Your task to perform on an android device: Open the phone app and click the voicemail tab. Image 0: 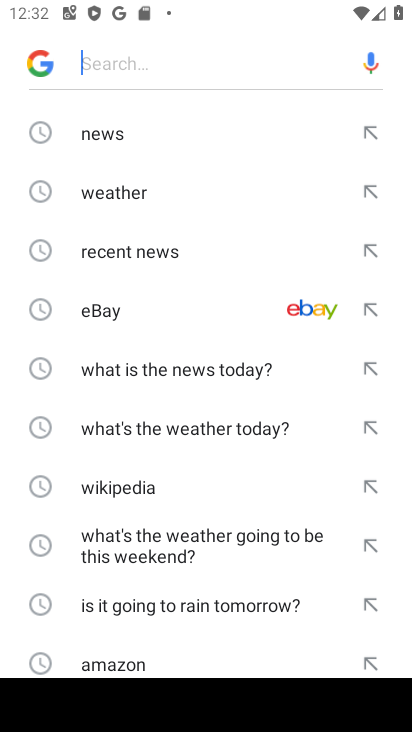
Step 0: press home button
Your task to perform on an android device: Open the phone app and click the voicemail tab. Image 1: 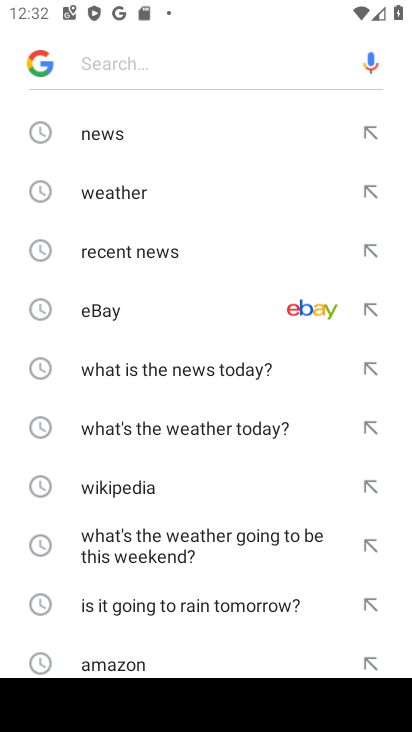
Step 1: press home button
Your task to perform on an android device: Open the phone app and click the voicemail tab. Image 2: 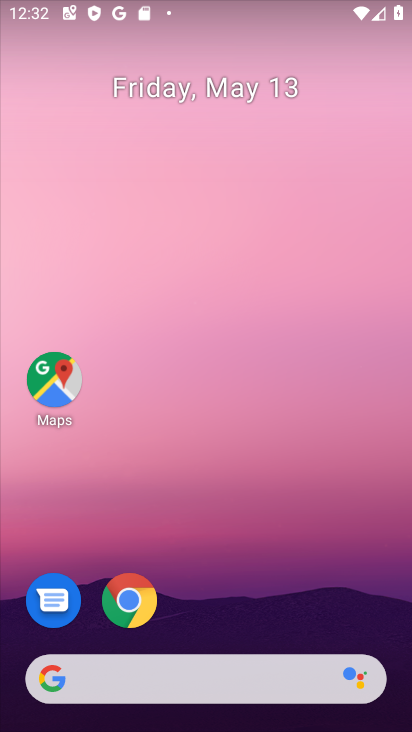
Step 2: drag from (232, 635) to (161, 107)
Your task to perform on an android device: Open the phone app and click the voicemail tab. Image 3: 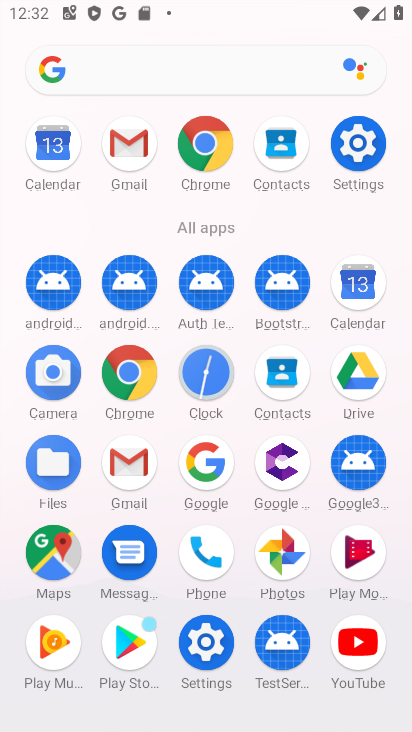
Step 3: click (198, 542)
Your task to perform on an android device: Open the phone app and click the voicemail tab. Image 4: 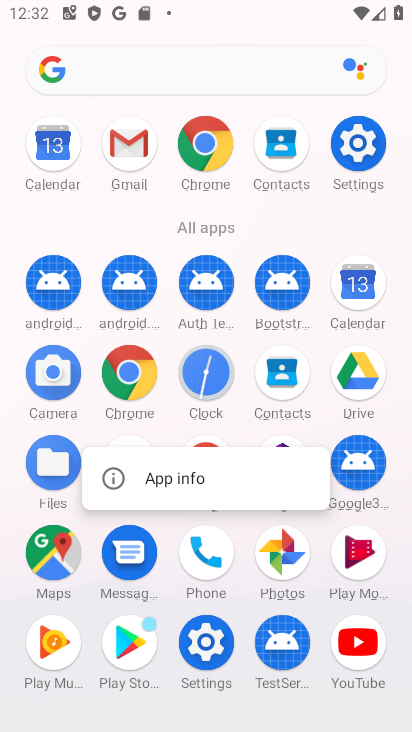
Step 4: click (158, 469)
Your task to perform on an android device: Open the phone app and click the voicemail tab. Image 5: 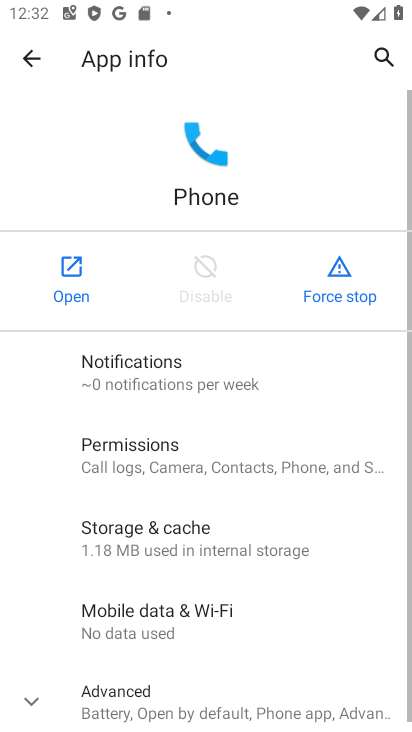
Step 5: click (72, 278)
Your task to perform on an android device: Open the phone app and click the voicemail tab. Image 6: 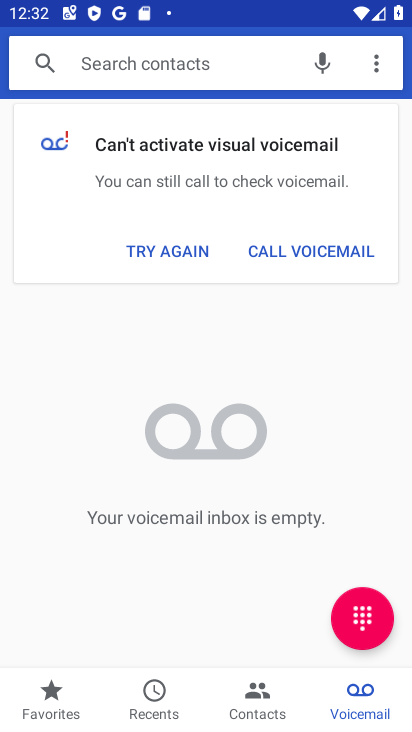
Step 6: click (374, 714)
Your task to perform on an android device: Open the phone app and click the voicemail tab. Image 7: 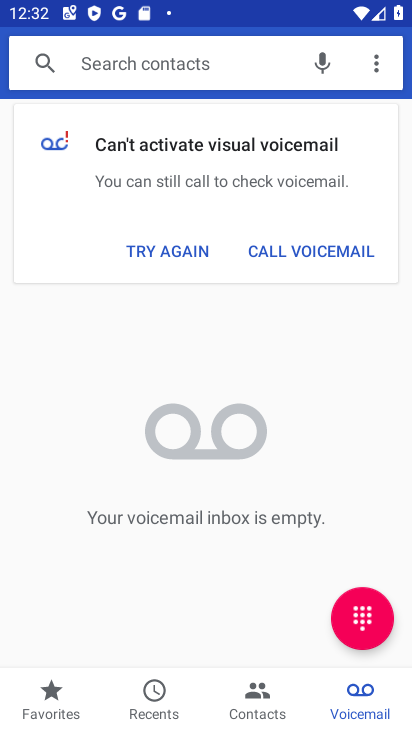
Step 7: task complete